Your task to perform on an android device: turn on the 24-hour format for clock Image 0: 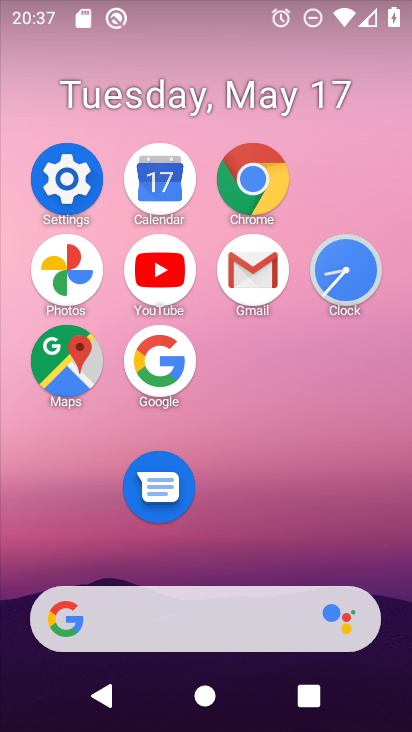
Step 0: click (361, 272)
Your task to perform on an android device: turn on the 24-hour format for clock Image 1: 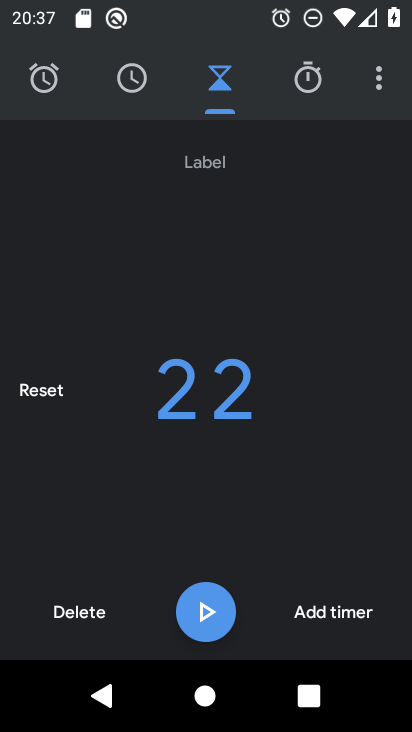
Step 1: click (389, 89)
Your task to perform on an android device: turn on the 24-hour format for clock Image 2: 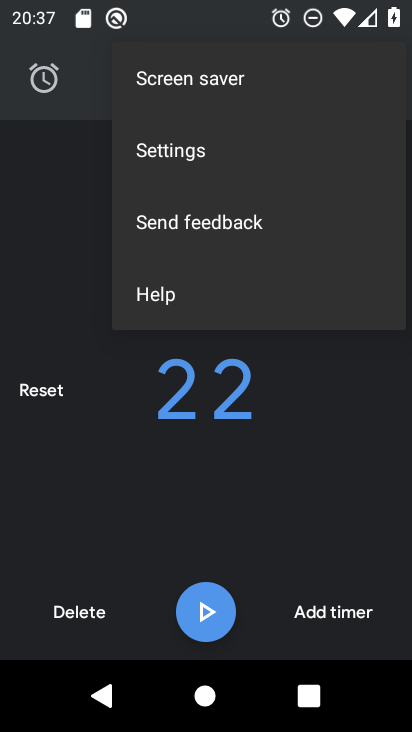
Step 2: click (219, 151)
Your task to perform on an android device: turn on the 24-hour format for clock Image 3: 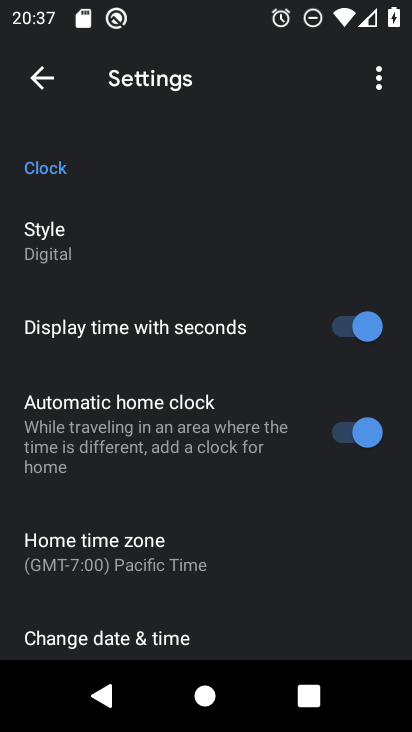
Step 3: drag from (247, 492) to (244, 160)
Your task to perform on an android device: turn on the 24-hour format for clock Image 4: 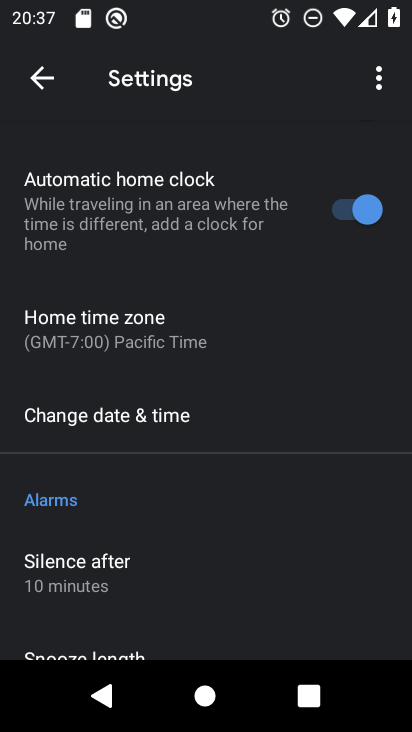
Step 4: click (233, 416)
Your task to perform on an android device: turn on the 24-hour format for clock Image 5: 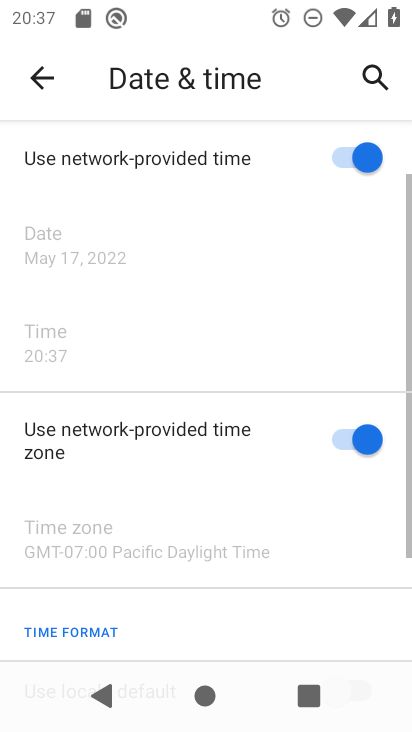
Step 5: task complete